Your task to perform on an android device: turn on improve location accuracy Image 0: 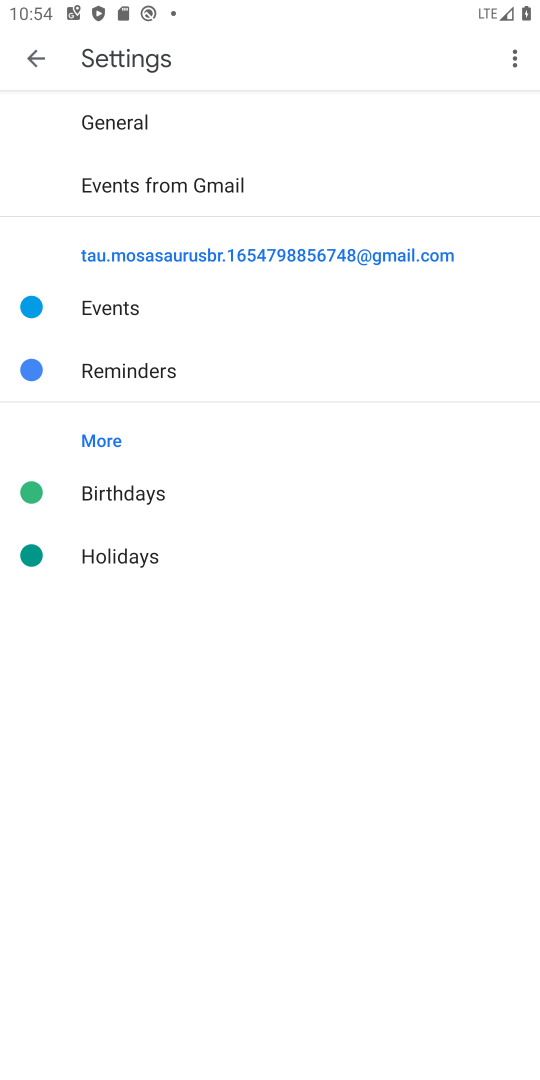
Step 0: press home button
Your task to perform on an android device: turn on improve location accuracy Image 1: 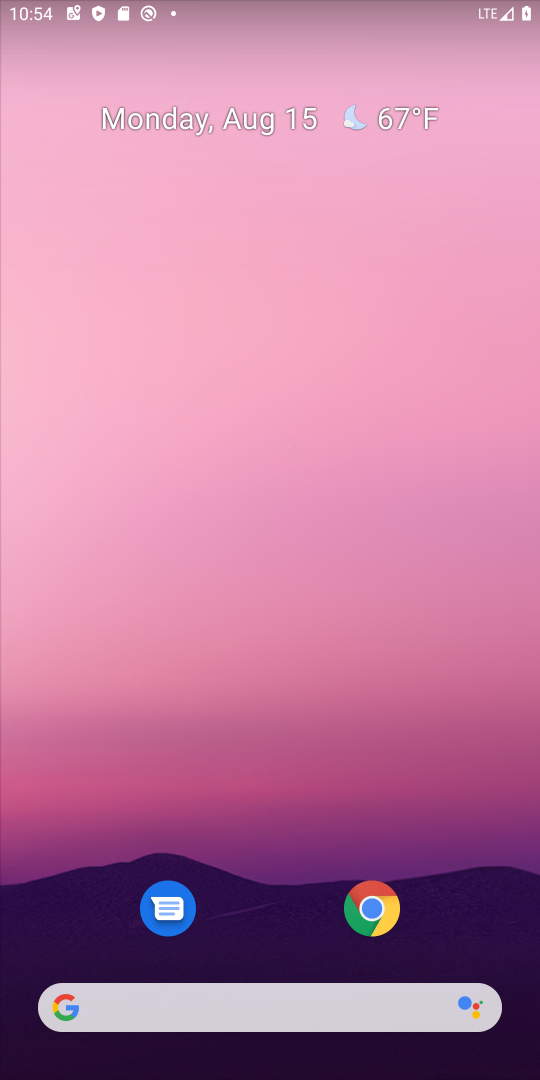
Step 1: drag from (226, 891) to (222, 329)
Your task to perform on an android device: turn on improve location accuracy Image 2: 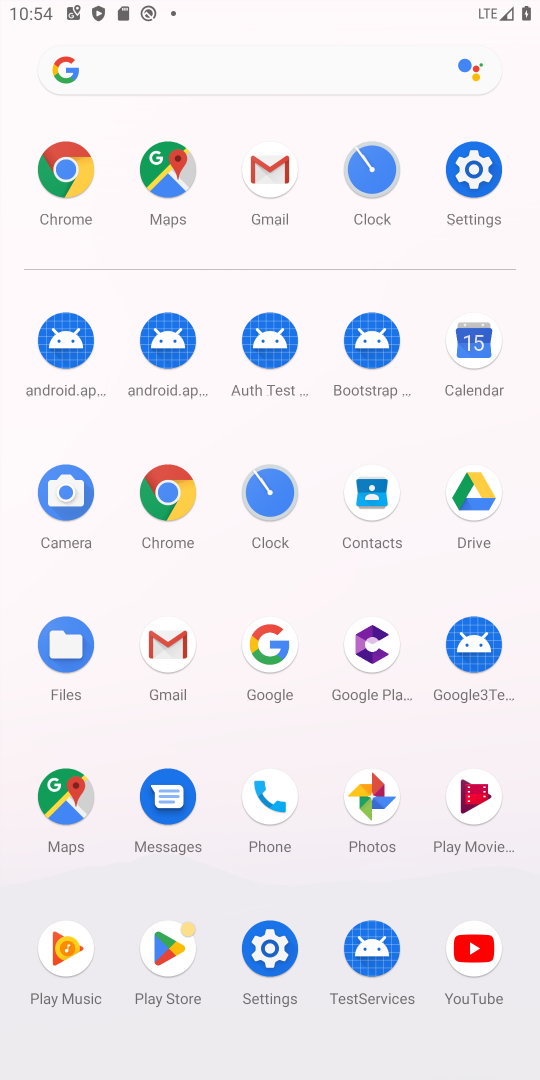
Step 2: click (270, 958)
Your task to perform on an android device: turn on improve location accuracy Image 3: 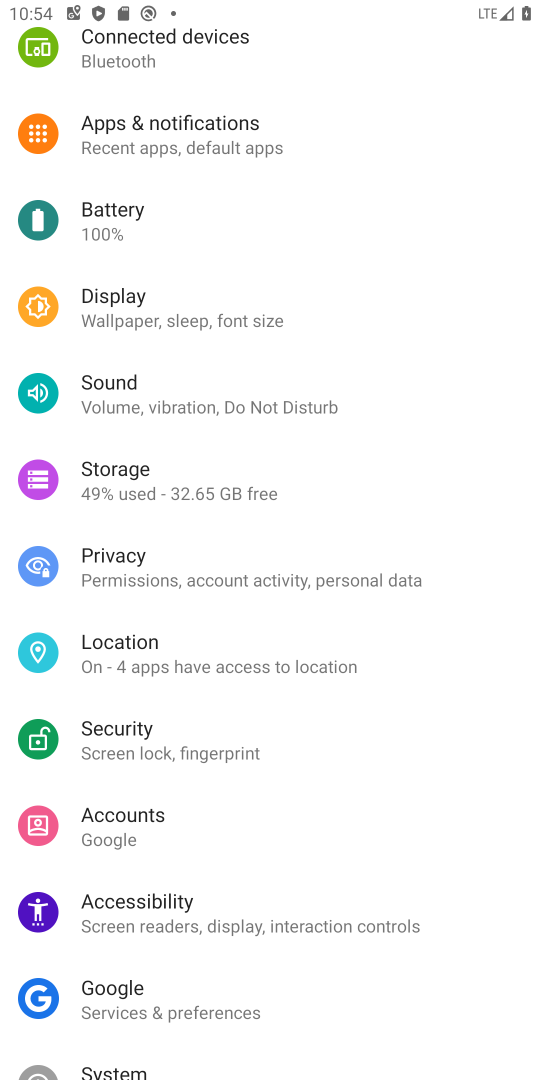
Step 3: click (150, 641)
Your task to perform on an android device: turn on improve location accuracy Image 4: 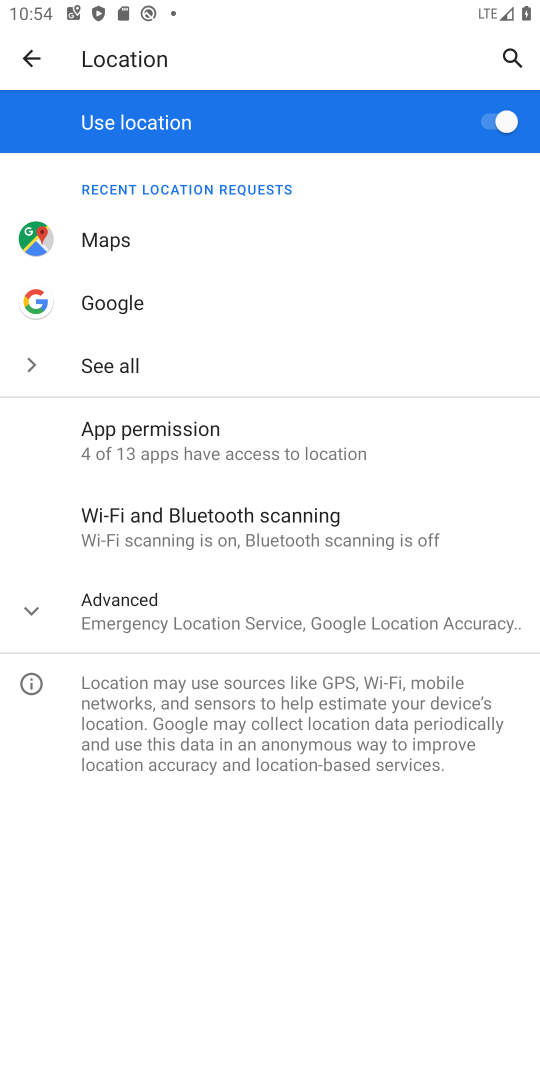
Step 4: click (150, 641)
Your task to perform on an android device: turn on improve location accuracy Image 5: 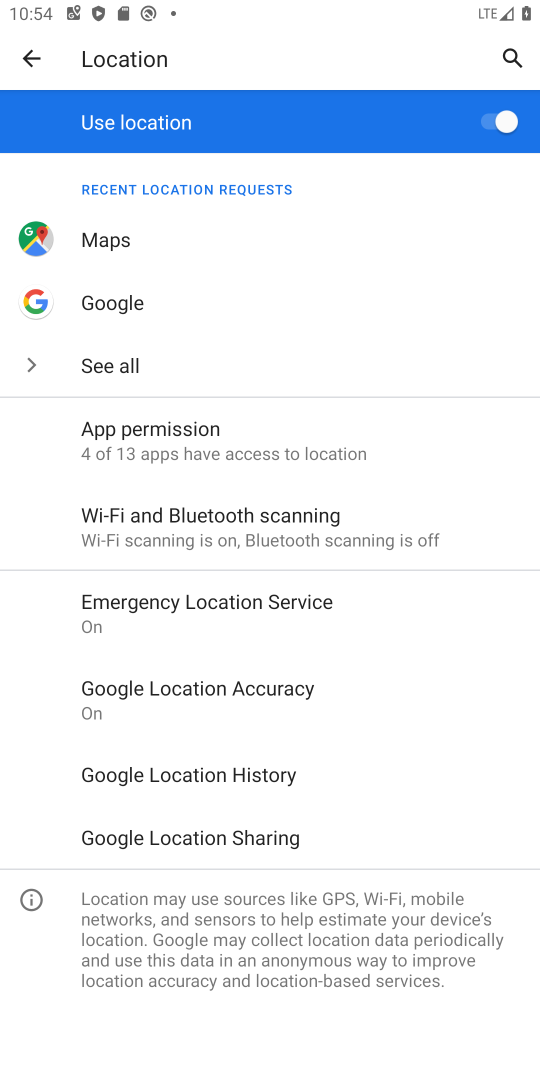
Step 5: click (129, 692)
Your task to perform on an android device: turn on improve location accuracy Image 6: 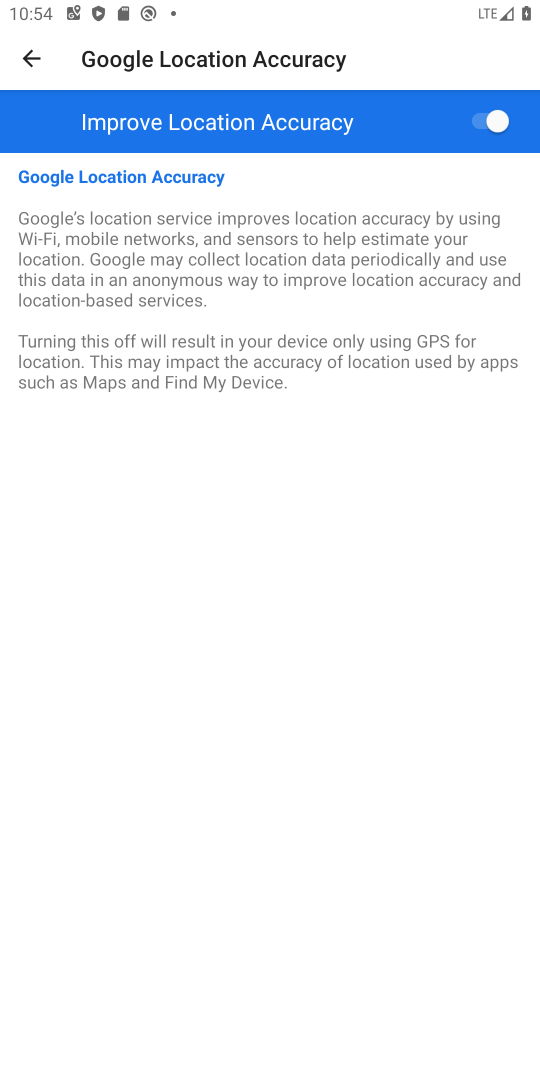
Step 6: task complete